Your task to perform on an android device: turn on airplane mode Image 0: 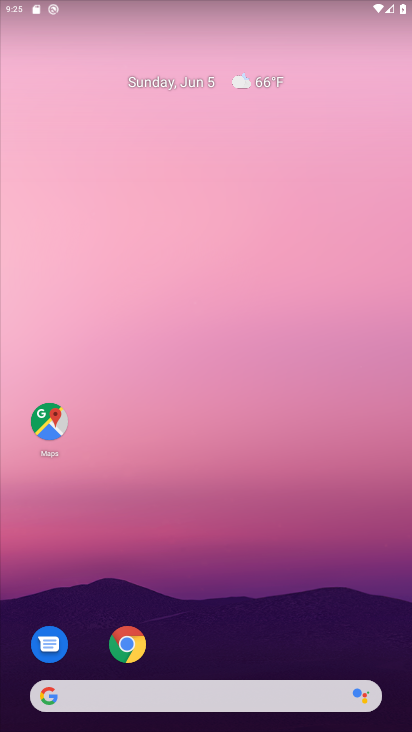
Step 0: drag from (236, 624) to (205, 105)
Your task to perform on an android device: turn on airplane mode Image 1: 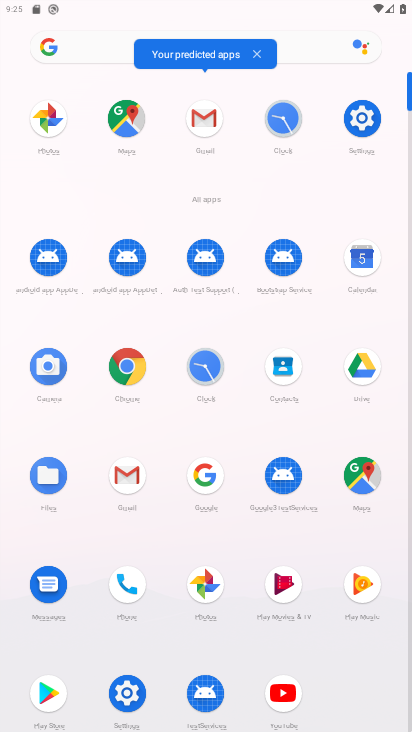
Step 1: click (361, 135)
Your task to perform on an android device: turn on airplane mode Image 2: 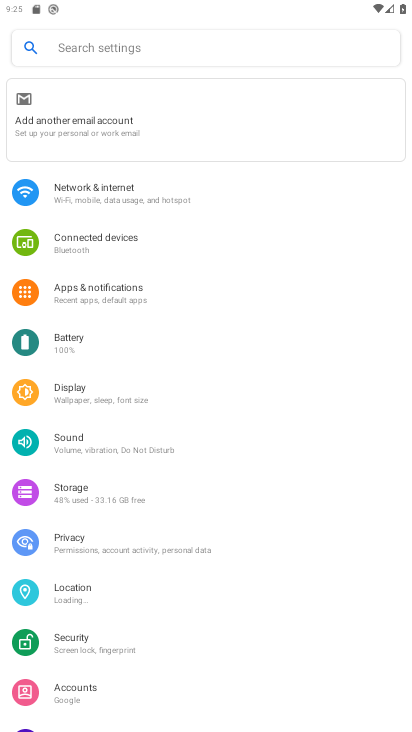
Step 2: click (158, 195)
Your task to perform on an android device: turn on airplane mode Image 3: 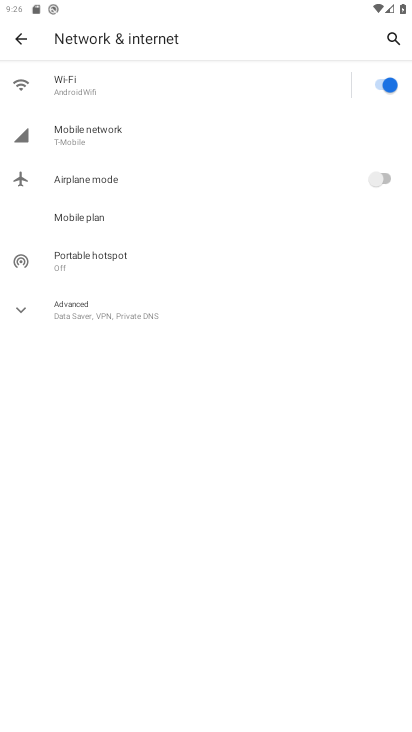
Step 3: click (383, 171)
Your task to perform on an android device: turn on airplane mode Image 4: 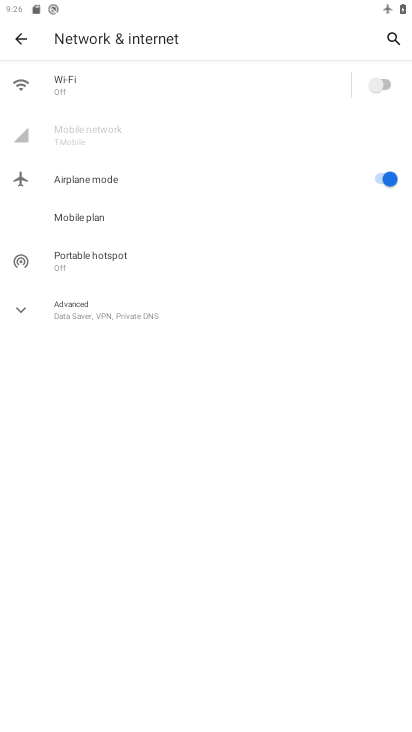
Step 4: task complete